Your task to perform on an android device: see tabs open on other devices in the chrome app Image 0: 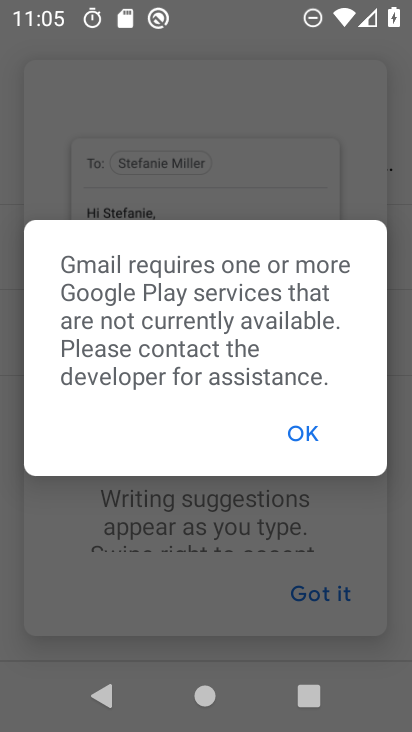
Step 0: press home button
Your task to perform on an android device: see tabs open on other devices in the chrome app Image 1: 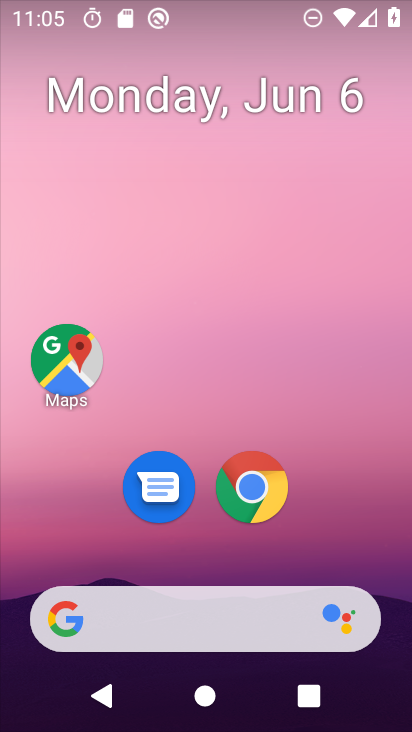
Step 1: drag from (406, 681) to (272, 10)
Your task to perform on an android device: see tabs open on other devices in the chrome app Image 2: 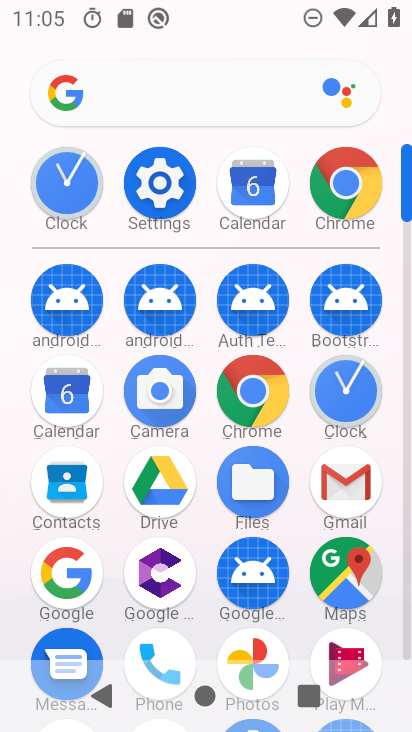
Step 2: click (353, 180)
Your task to perform on an android device: see tabs open on other devices in the chrome app Image 3: 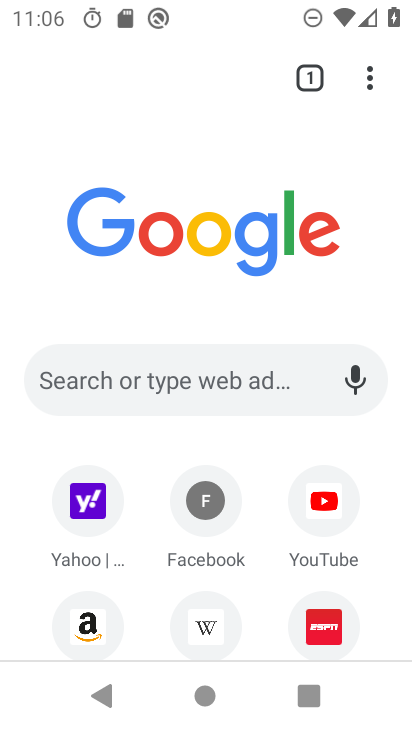
Step 3: task complete